Your task to perform on an android device: Open Google Maps Image 0: 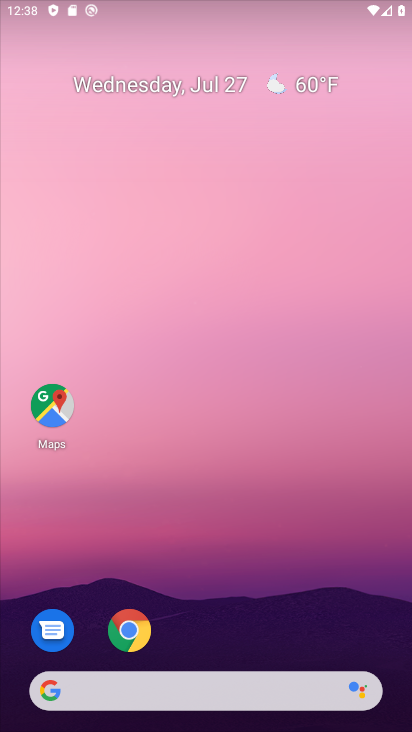
Step 0: press home button
Your task to perform on an android device: Open Google Maps Image 1: 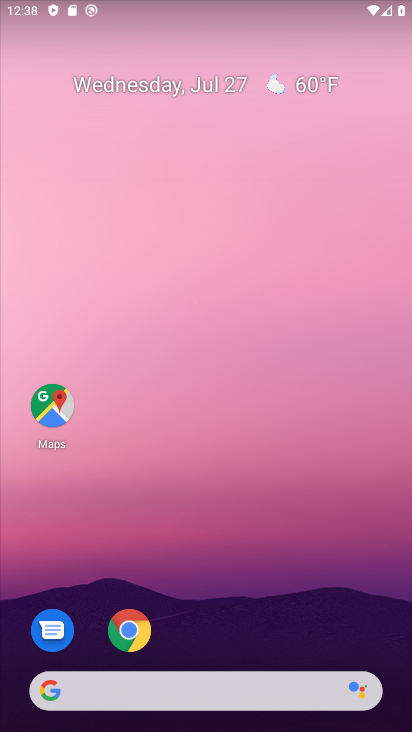
Step 1: drag from (262, 650) to (304, 10)
Your task to perform on an android device: Open Google Maps Image 2: 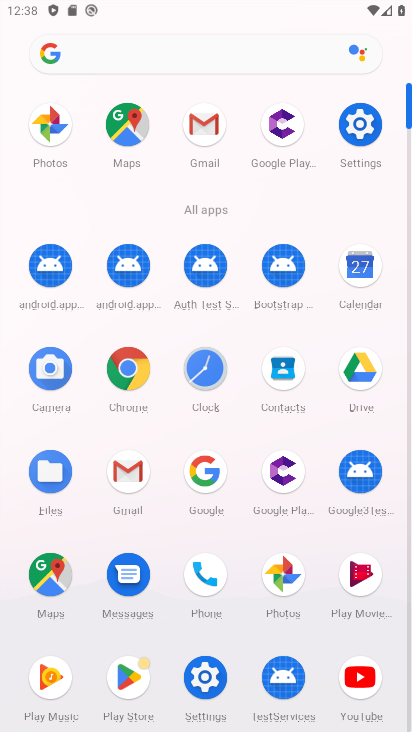
Step 2: click (129, 129)
Your task to perform on an android device: Open Google Maps Image 3: 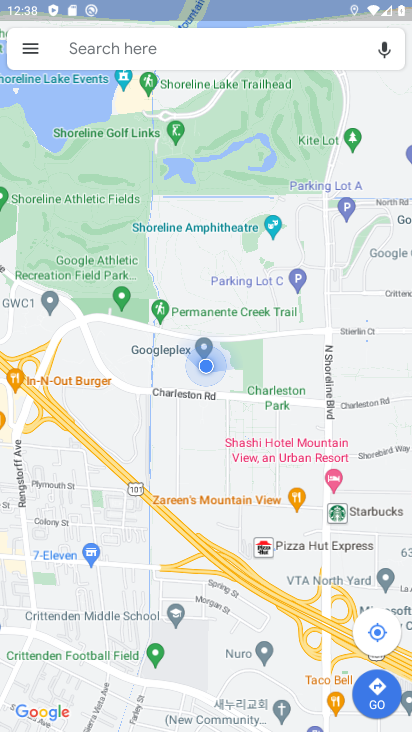
Step 3: task complete